Your task to perform on an android device: Open Google Image 0: 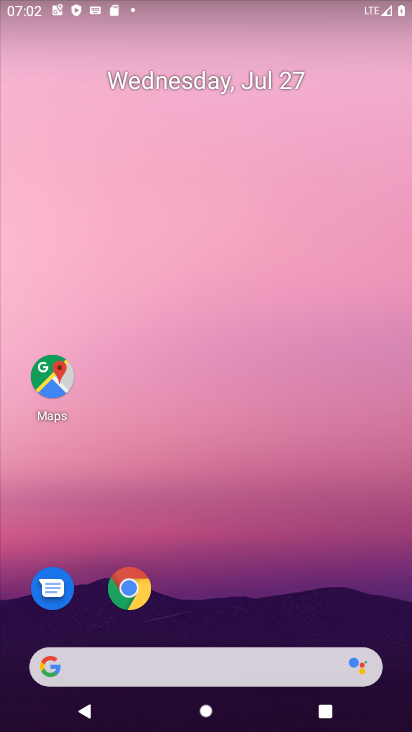
Step 0: drag from (222, 589) to (250, 41)
Your task to perform on an android device: Open Google Image 1: 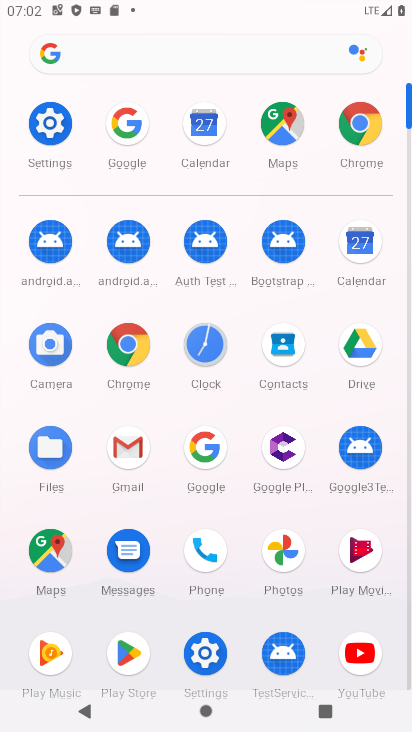
Step 1: click (129, 356)
Your task to perform on an android device: Open Google Image 2: 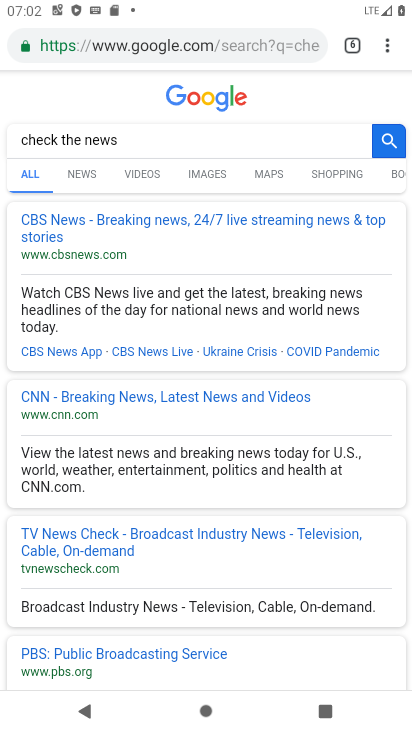
Step 2: task complete